Your task to perform on an android device: toggle javascript in the chrome app Image 0: 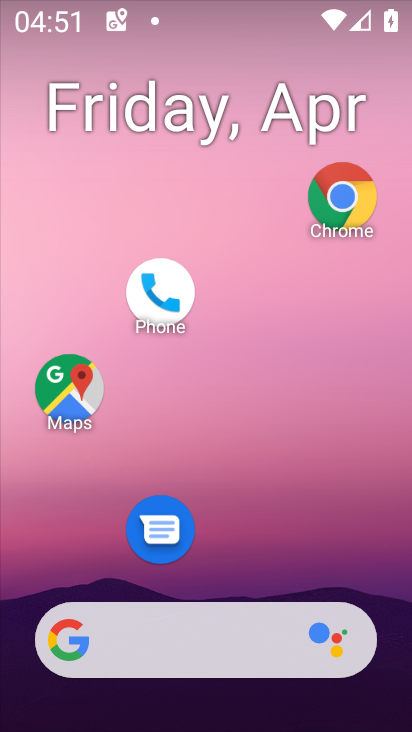
Step 0: click (339, 184)
Your task to perform on an android device: toggle javascript in the chrome app Image 1: 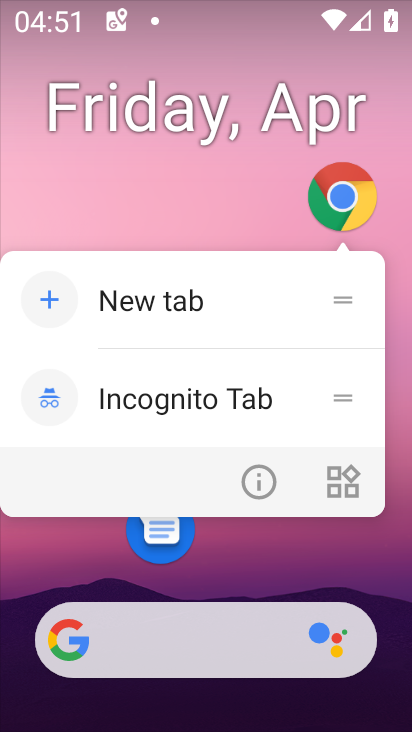
Step 1: click (357, 188)
Your task to perform on an android device: toggle javascript in the chrome app Image 2: 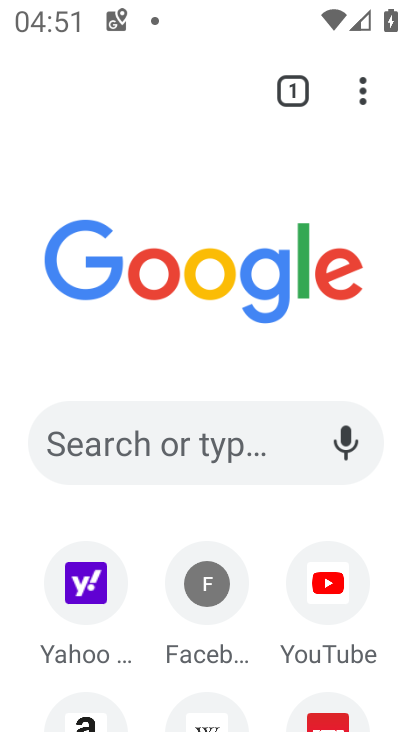
Step 2: click (363, 97)
Your task to perform on an android device: toggle javascript in the chrome app Image 3: 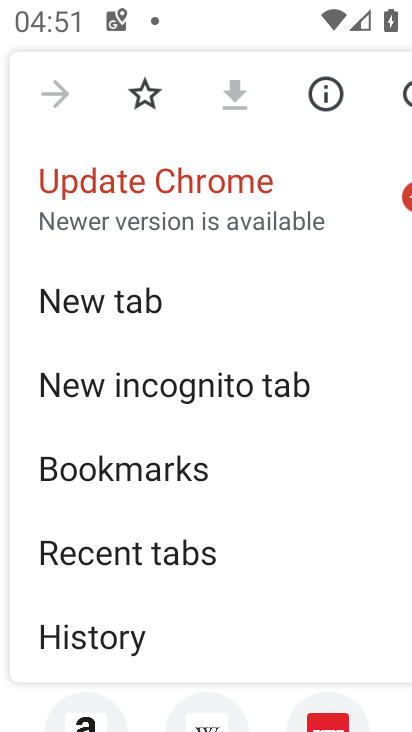
Step 3: drag from (212, 624) to (249, 197)
Your task to perform on an android device: toggle javascript in the chrome app Image 4: 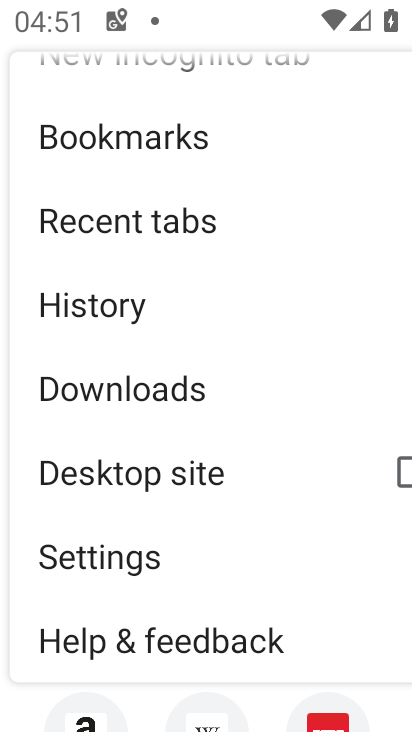
Step 4: click (167, 550)
Your task to perform on an android device: toggle javascript in the chrome app Image 5: 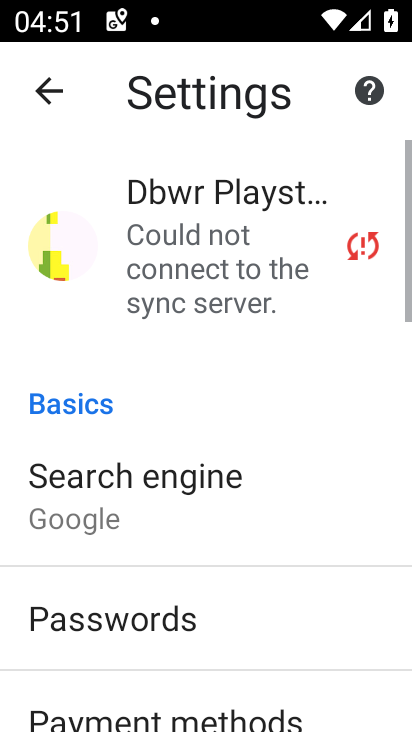
Step 5: drag from (241, 648) to (261, 152)
Your task to perform on an android device: toggle javascript in the chrome app Image 6: 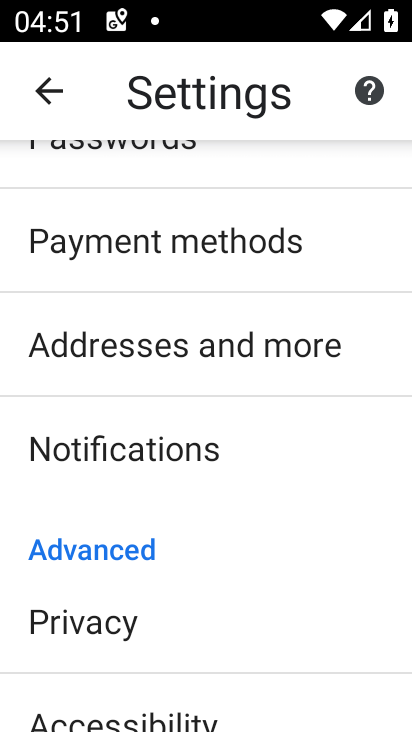
Step 6: drag from (209, 580) to (227, 165)
Your task to perform on an android device: toggle javascript in the chrome app Image 7: 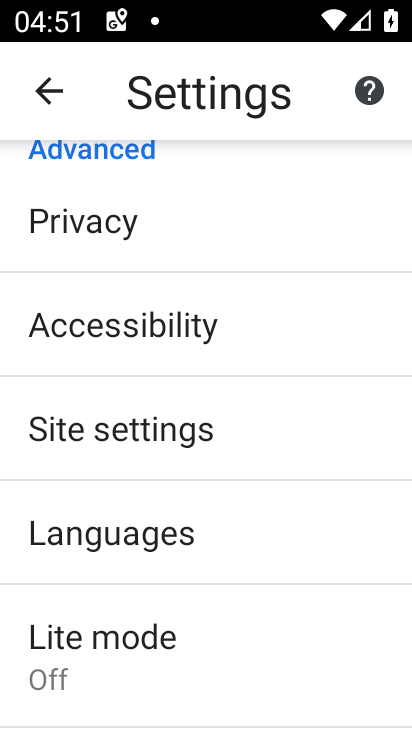
Step 7: click (219, 434)
Your task to perform on an android device: toggle javascript in the chrome app Image 8: 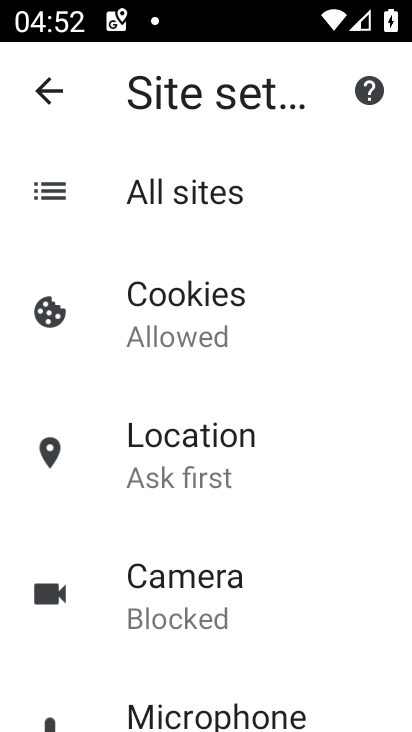
Step 8: drag from (265, 646) to (321, 198)
Your task to perform on an android device: toggle javascript in the chrome app Image 9: 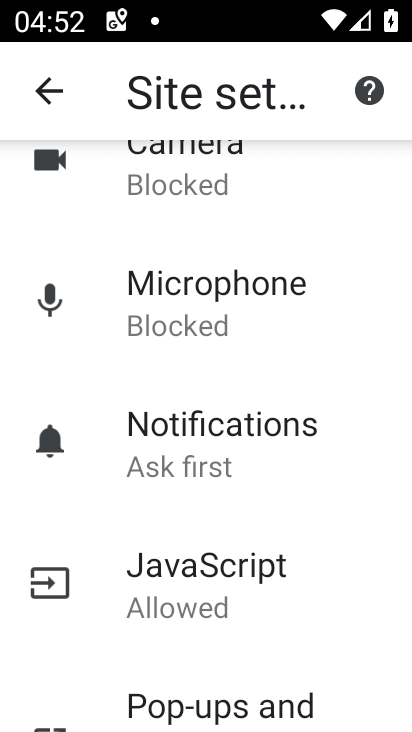
Step 9: click (244, 597)
Your task to perform on an android device: toggle javascript in the chrome app Image 10: 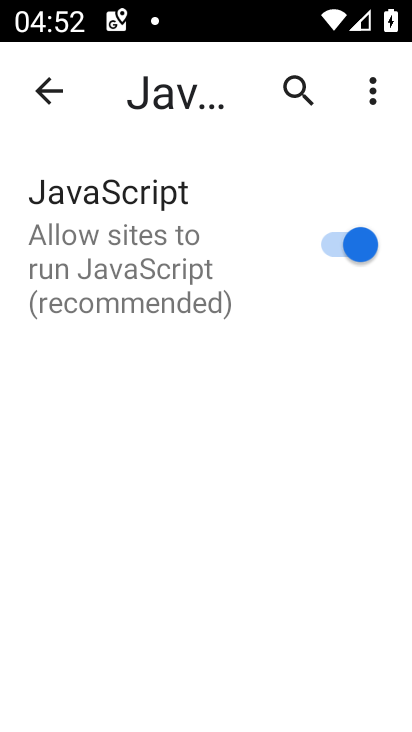
Step 10: click (338, 238)
Your task to perform on an android device: toggle javascript in the chrome app Image 11: 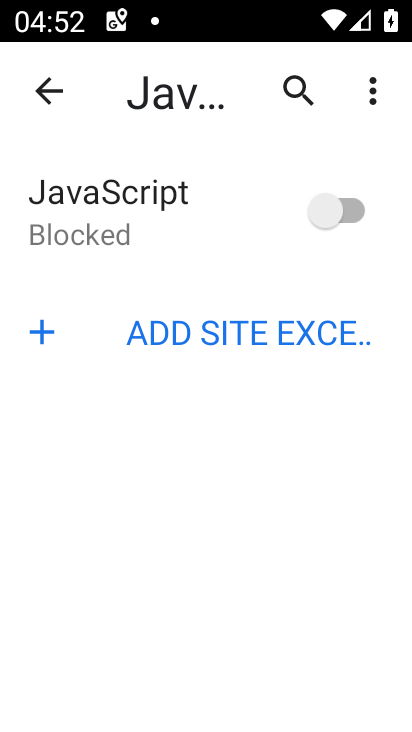
Step 11: task complete